Your task to perform on an android device: toggle airplane mode Image 0: 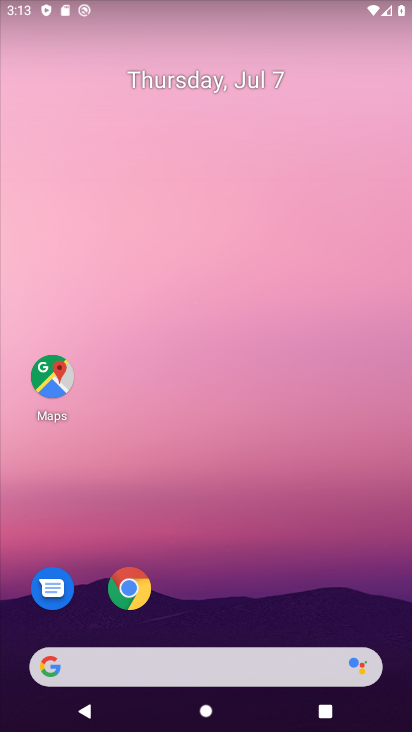
Step 0: press back button
Your task to perform on an android device: toggle airplane mode Image 1: 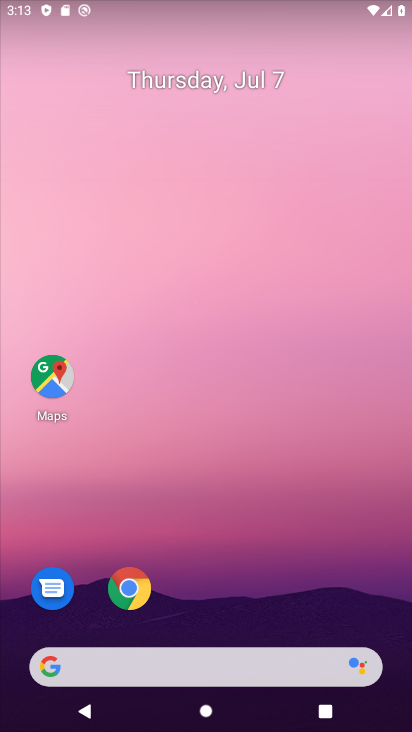
Step 1: drag from (256, 573) to (174, 175)
Your task to perform on an android device: toggle airplane mode Image 2: 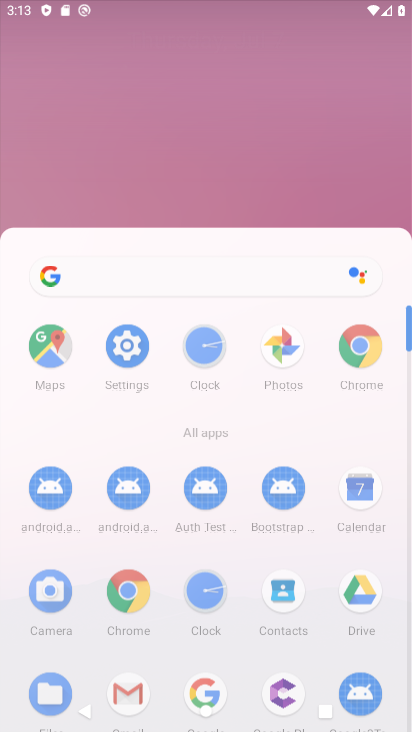
Step 2: click (105, 2)
Your task to perform on an android device: toggle airplane mode Image 3: 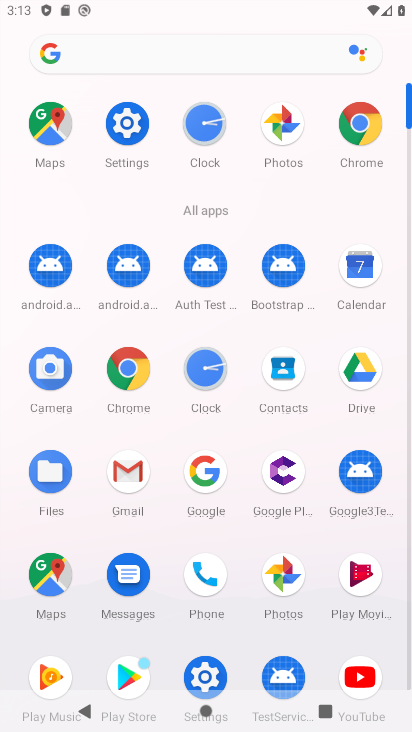
Step 3: click (128, 88)
Your task to perform on an android device: toggle airplane mode Image 4: 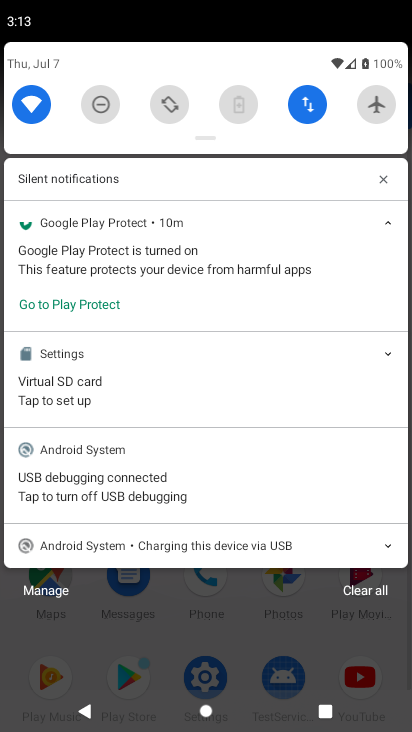
Step 4: click (146, 604)
Your task to perform on an android device: toggle airplane mode Image 5: 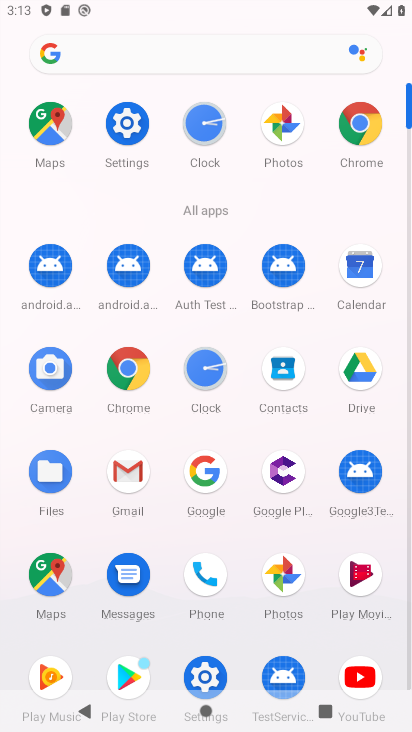
Step 5: click (146, 113)
Your task to perform on an android device: toggle airplane mode Image 6: 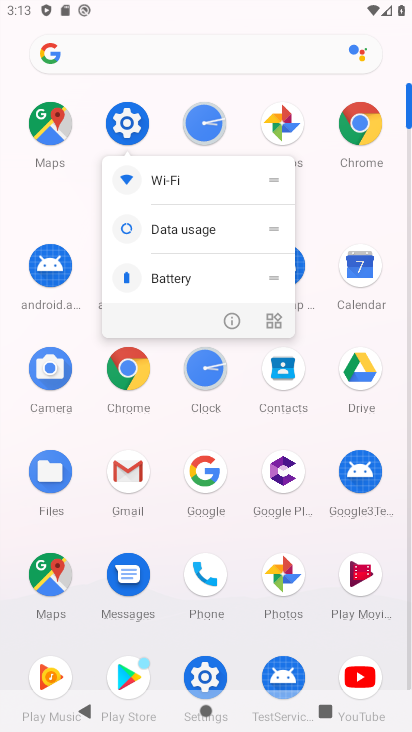
Step 6: click (134, 129)
Your task to perform on an android device: toggle airplane mode Image 7: 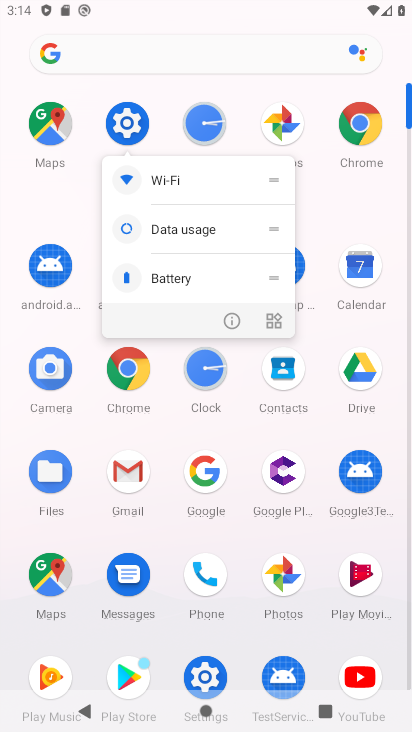
Step 7: click (120, 129)
Your task to perform on an android device: toggle airplane mode Image 8: 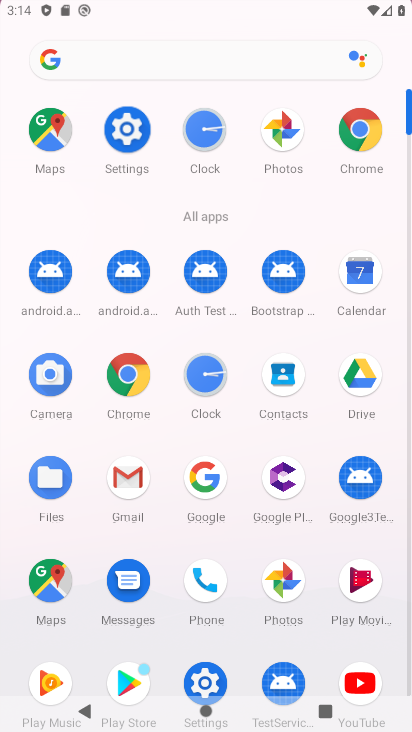
Step 8: click (128, 114)
Your task to perform on an android device: toggle airplane mode Image 9: 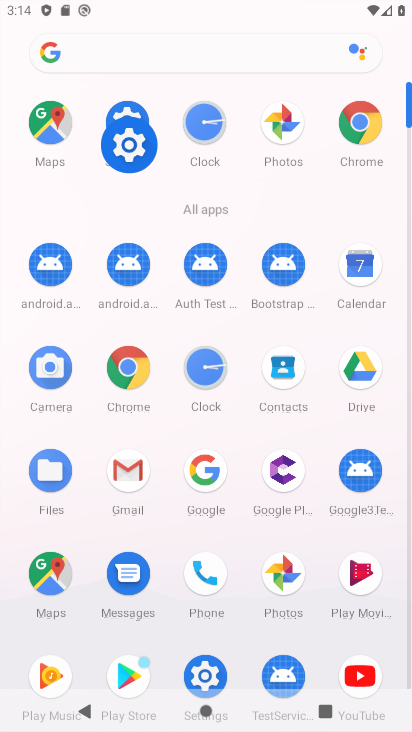
Step 9: click (128, 114)
Your task to perform on an android device: toggle airplane mode Image 10: 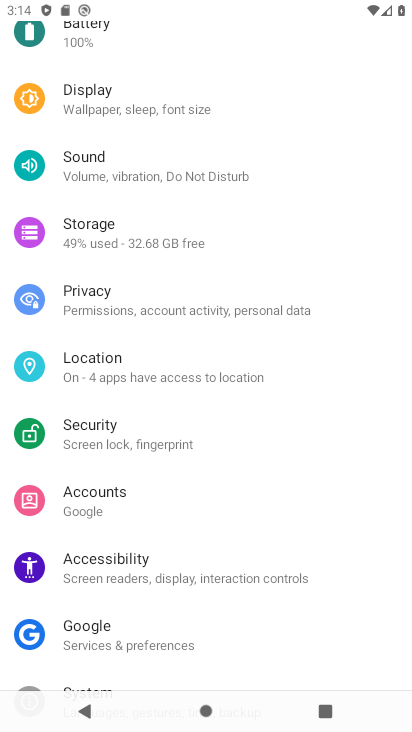
Step 10: click (124, 114)
Your task to perform on an android device: toggle airplane mode Image 11: 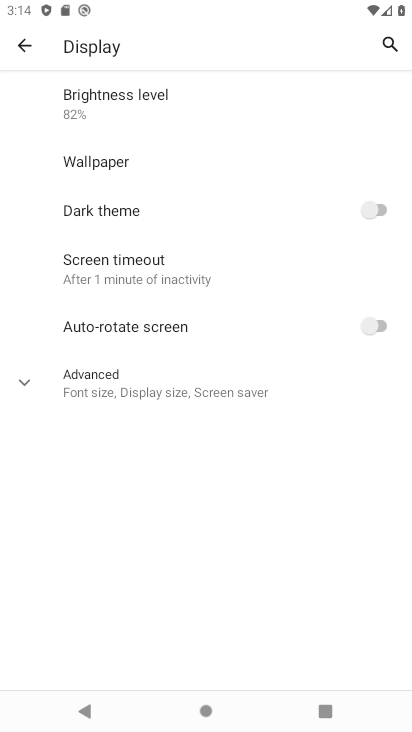
Step 11: click (25, 42)
Your task to perform on an android device: toggle airplane mode Image 12: 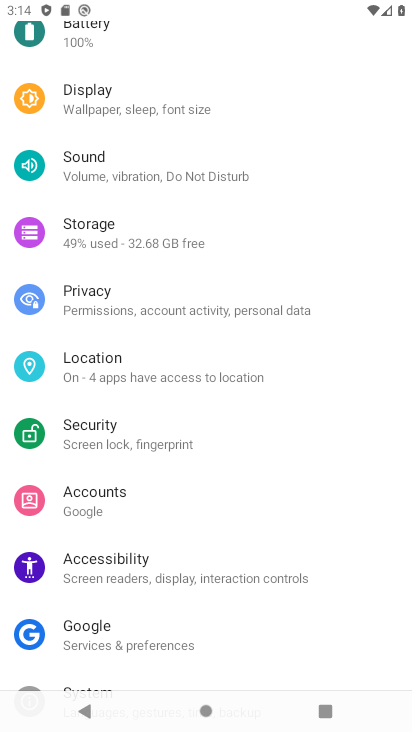
Step 12: drag from (123, 62) to (175, 453)
Your task to perform on an android device: toggle airplane mode Image 13: 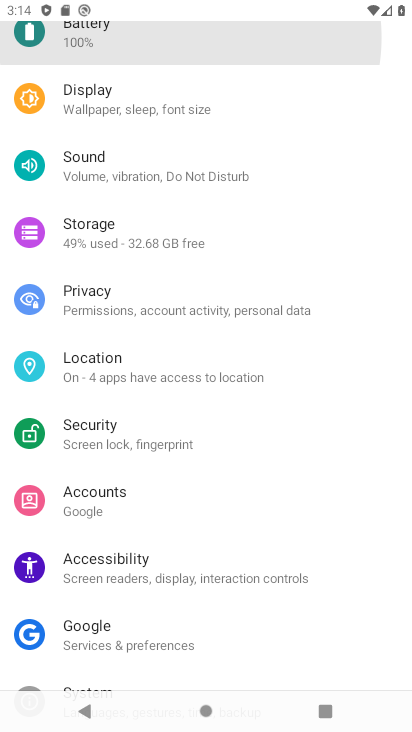
Step 13: drag from (142, 128) to (149, 465)
Your task to perform on an android device: toggle airplane mode Image 14: 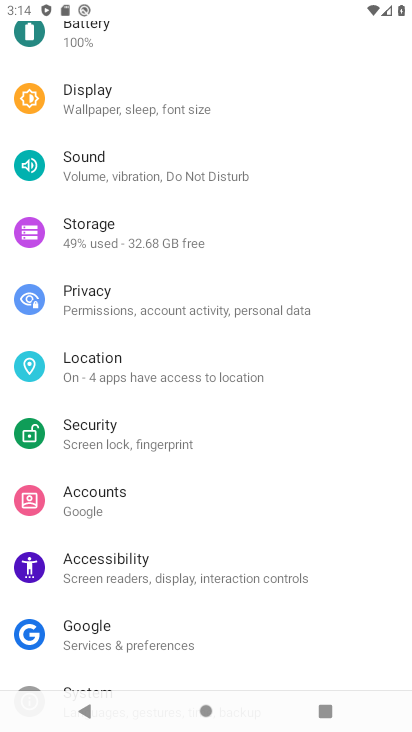
Step 14: drag from (110, 176) to (155, 412)
Your task to perform on an android device: toggle airplane mode Image 15: 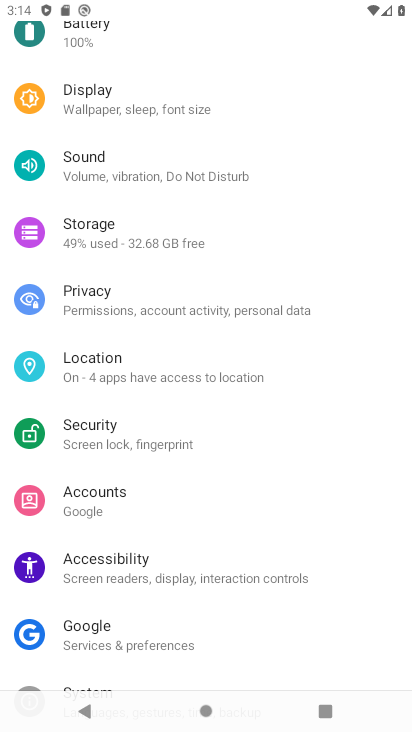
Step 15: drag from (138, 216) to (136, 470)
Your task to perform on an android device: toggle airplane mode Image 16: 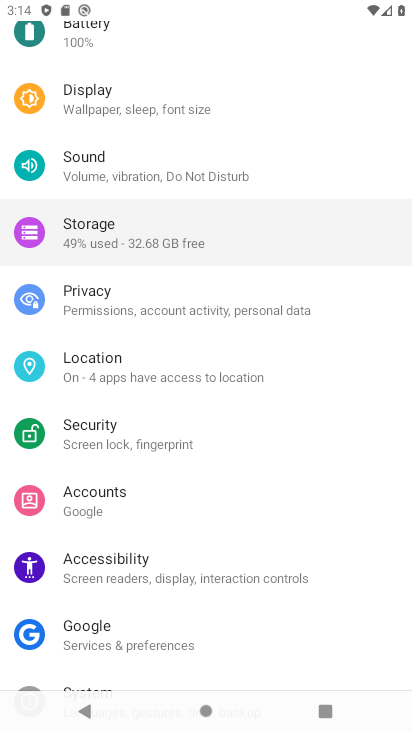
Step 16: drag from (138, 309) to (115, 560)
Your task to perform on an android device: toggle airplane mode Image 17: 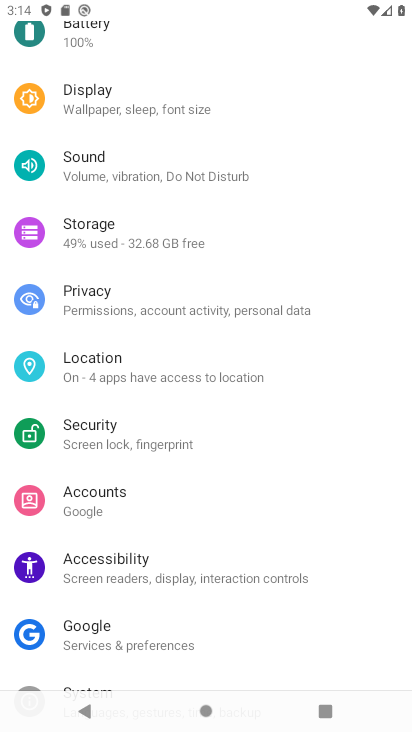
Step 17: drag from (110, 192) to (181, 487)
Your task to perform on an android device: toggle airplane mode Image 18: 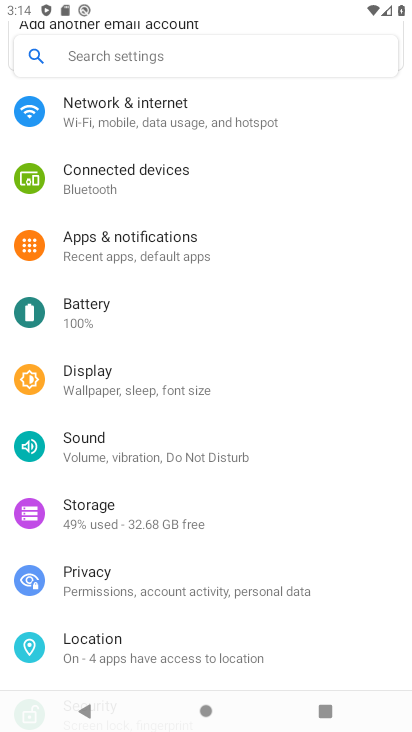
Step 18: drag from (128, 224) to (150, 548)
Your task to perform on an android device: toggle airplane mode Image 19: 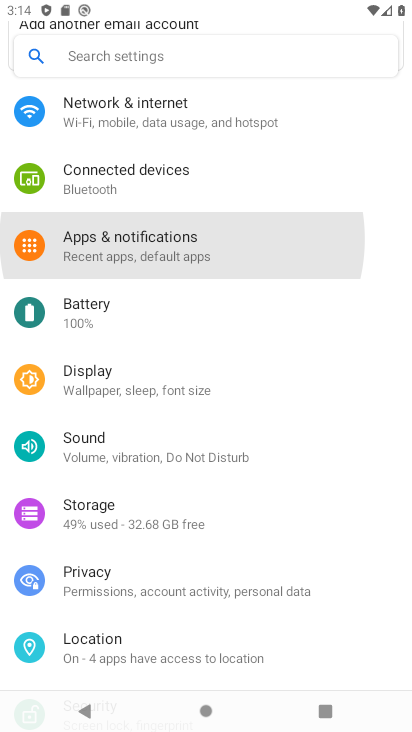
Step 19: drag from (86, 270) to (94, 516)
Your task to perform on an android device: toggle airplane mode Image 20: 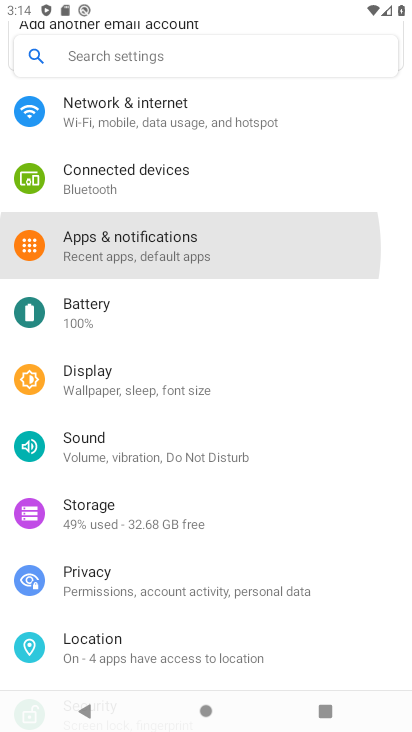
Step 20: drag from (76, 253) to (121, 508)
Your task to perform on an android device: toggle airplane mode Image 21: 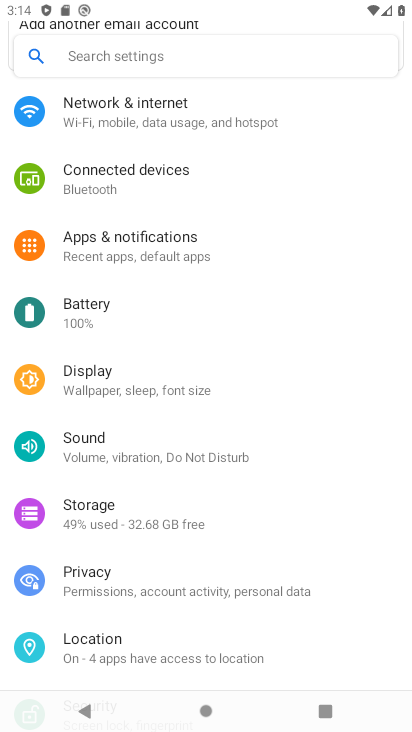
Step 21: drag from (72, 191) to (164, 225)
Your task to perform on an android device: toggle airplane mode Image 22: 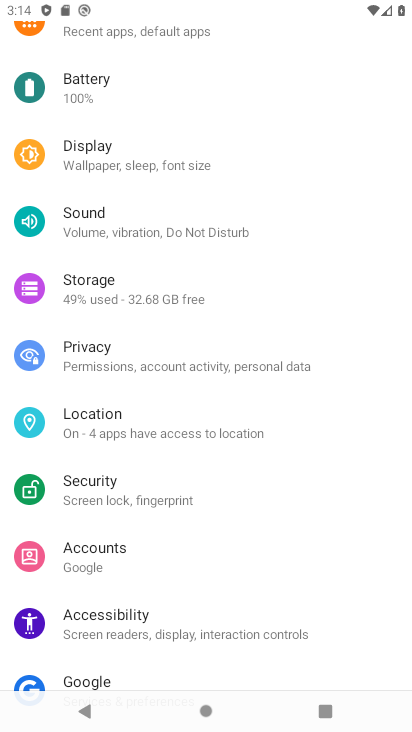
Step 22: drag from (154, 592) to (188, 306)
Your task to perform on an android device: toggle airplane mode Image 23: 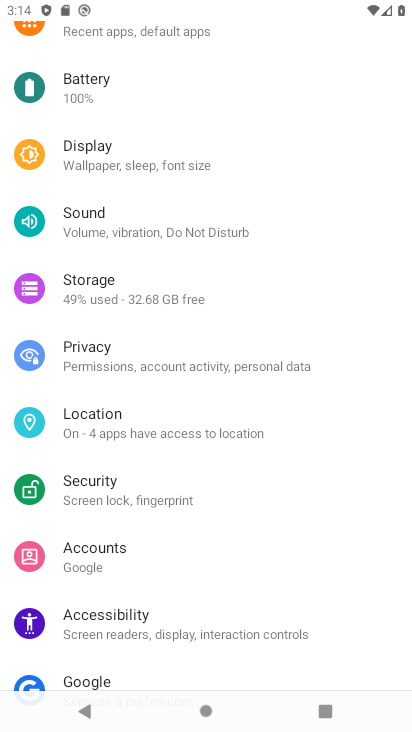
Step 23: drag from (169, 493) to (167, 322)
Your task to perform on an android device: toggle airplane mode Image 24: 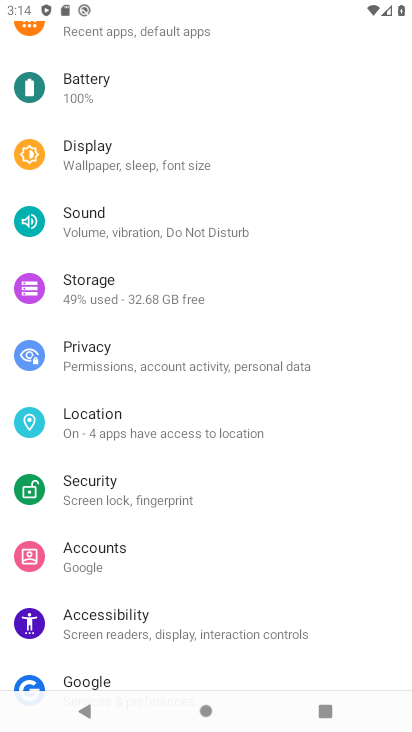
Step 24: drag from (162, 390) to (158, 266)
Your task to perform on an android device: toggle airplane mode Image 25: 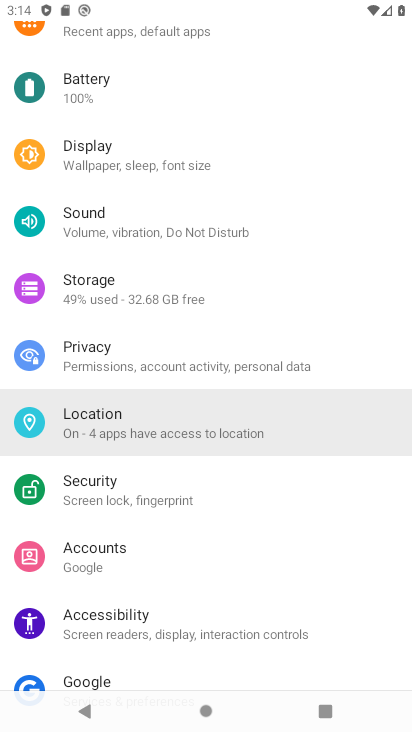
Step 25: drag from (154, 452) to (121, 225)
Your task to perform on an android device: toggle airplane mode Image 26: 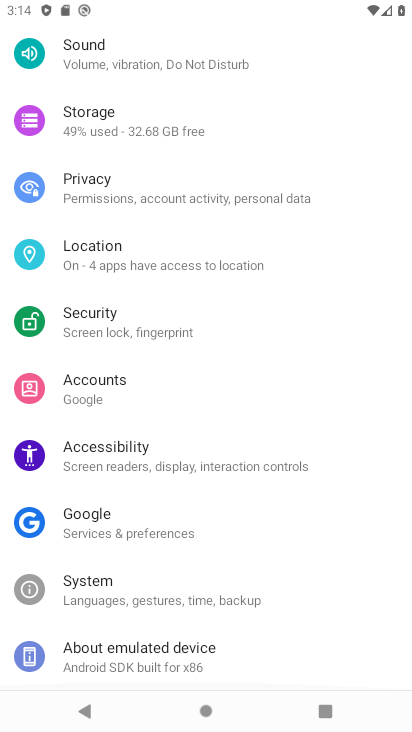
Step 26: drag from (156, 431) to (157, 274)
Your task to perform on an android device: toggle airplane mode Image 27: 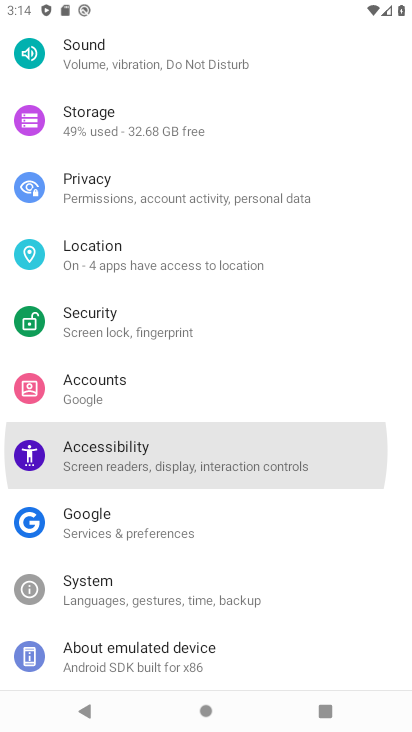
Step 27: drag from (157, 221) to (194, 512)
Your task to perform on an android device: toggle airplane mode Image 28: 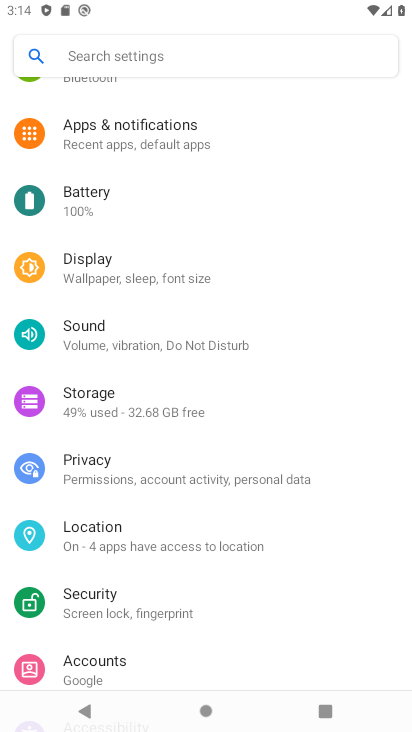
Step 28: drag from (136, 171) to (197, 594)
Your task to perform on an android device: toggle airplane mode Image 29: 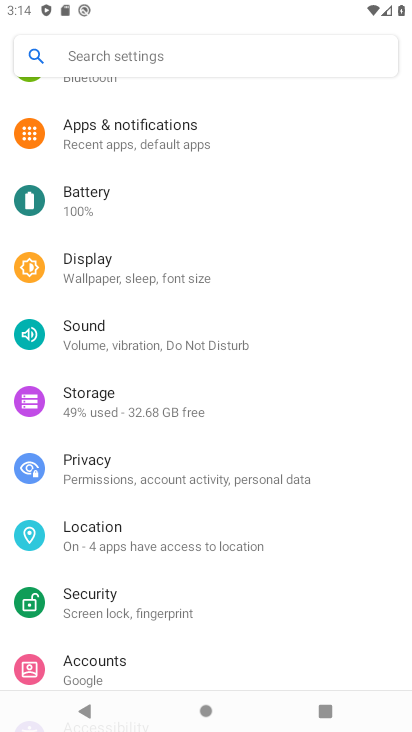
Step 29: drag from (197, 188) to (144, 569)
Your task to perform on an android device: toggle airplane mode Image 30: 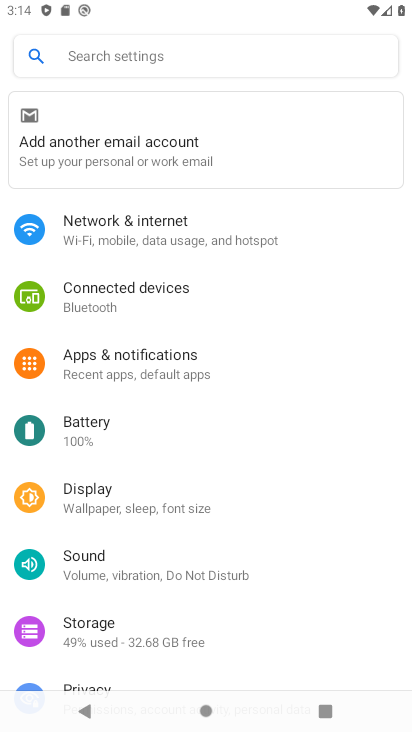
Step 30: click (135, 225)
Your task to perform on an android device: toggle airplane mode Image 31: 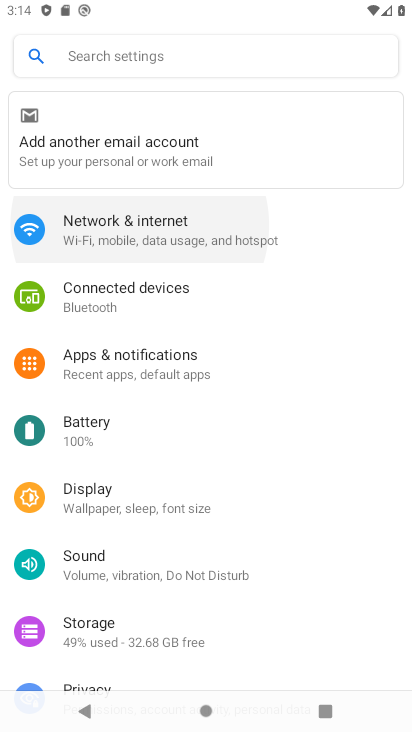
Step 31: click (135, 224)
Your task to perform on an android device: toggle airplane mode Image 32: 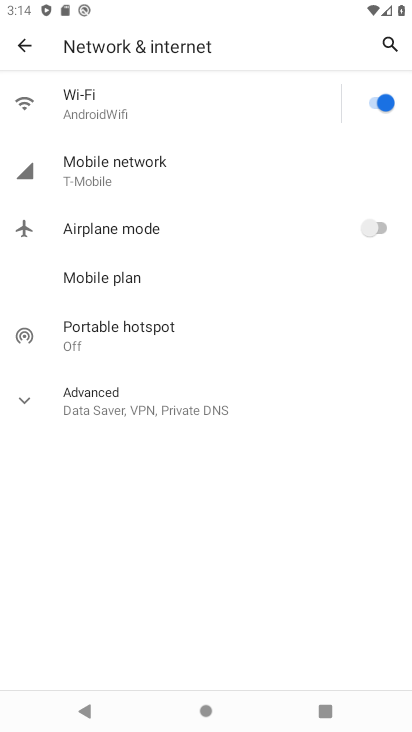
Step 32: click (370, 222)
Your task to perform on an android device: toggle airplane mode Image 33: 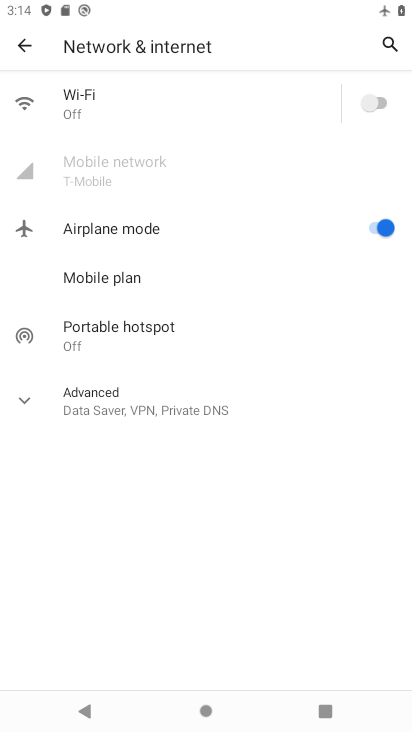
Step 33: task complete